Your task to perform on an android device: clear history in the chrome app Image 0: 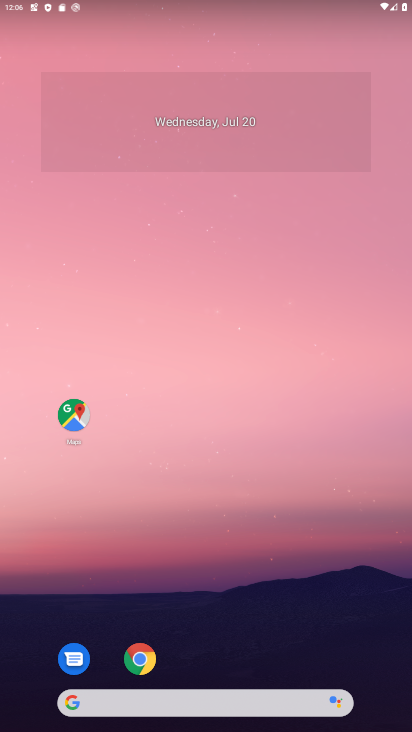
Step 0: click (134, 660)
Your task to perform on an android device: clear history in the chrome app Image 1: 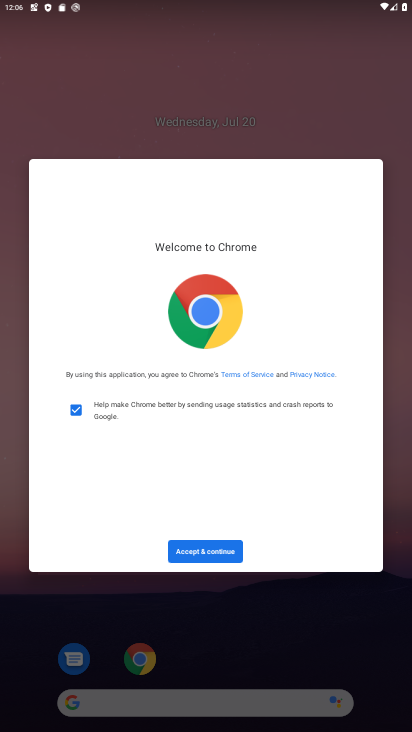
Step 1: click (218, 551)
Your task to perform on an android device: clear history in the chrome app Image 2: 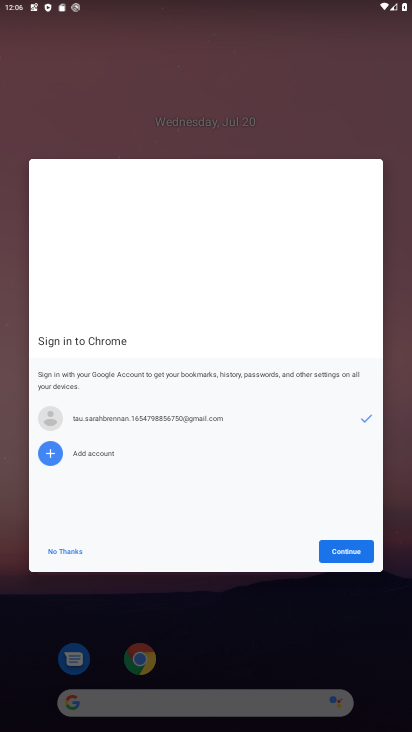
Step 2: click (347, 553)
Your task to perform on an android device: clear history in the chrome app Image 3: 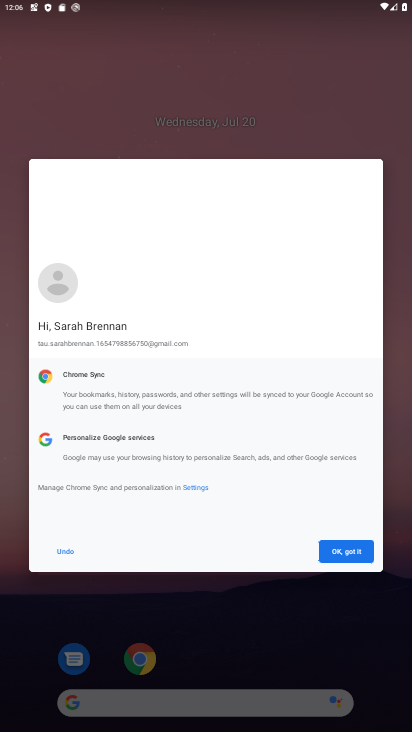
Step 3: click (347, 553)
Your task to perform on an android device: clear history in the chrome app Image 4: 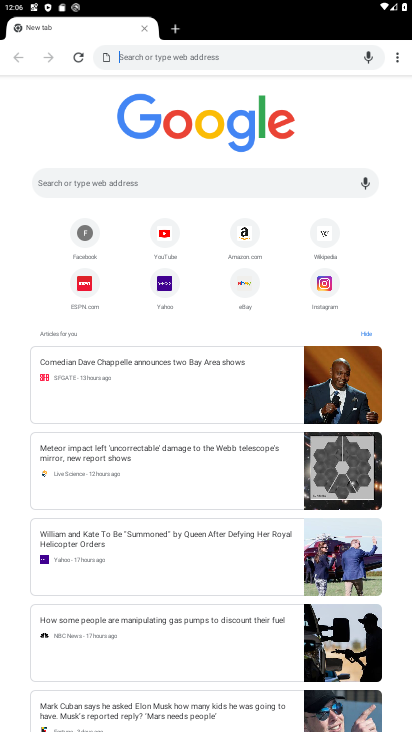
Step 4: click (396, 59)
Your task to perform on an android device: clear history in the chrome app Image 5: 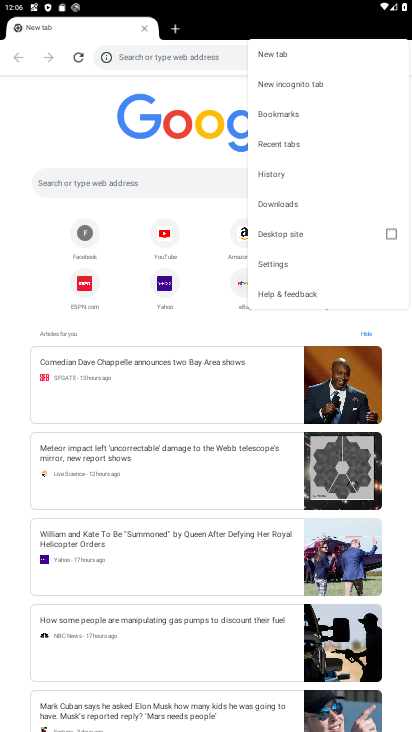
Step 5: click (286, 175)
Your task to perform on an android device: clear history in the chrome app Image 6: 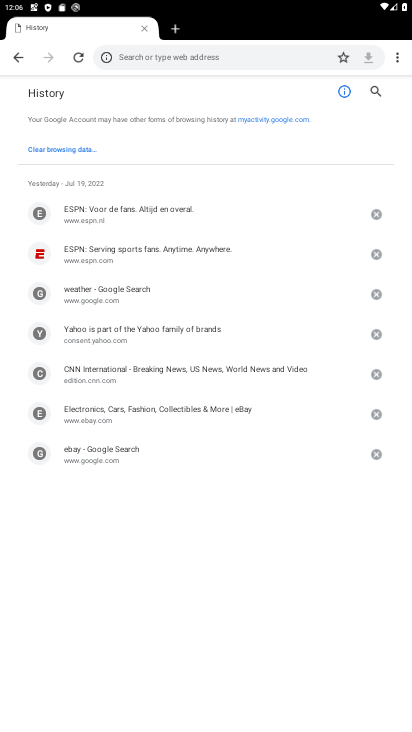
Step 6: click (75, 148)
Your task to perform on an android device: clear history in the chrome app Image 7: 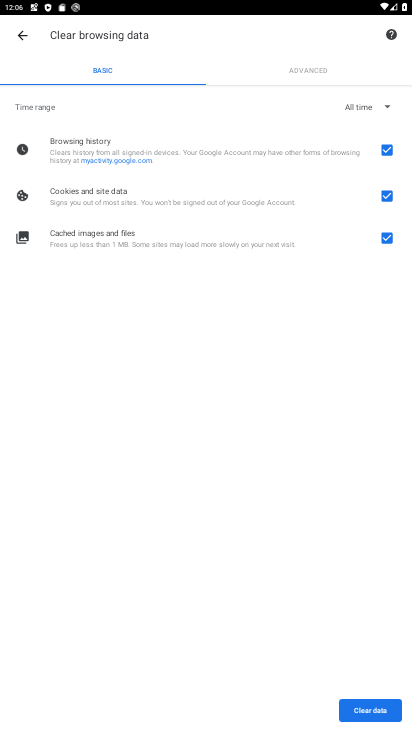
Step 7: click (362, 710)
Your task to perform on an android device: clear history in the chrome app Image 8: 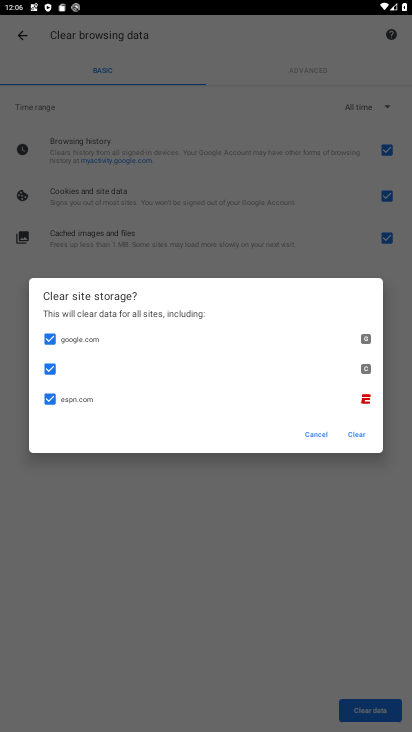
Step 8: click (357, 432)
Your task to perform on an android device: clear history in the chrome app Image 9: 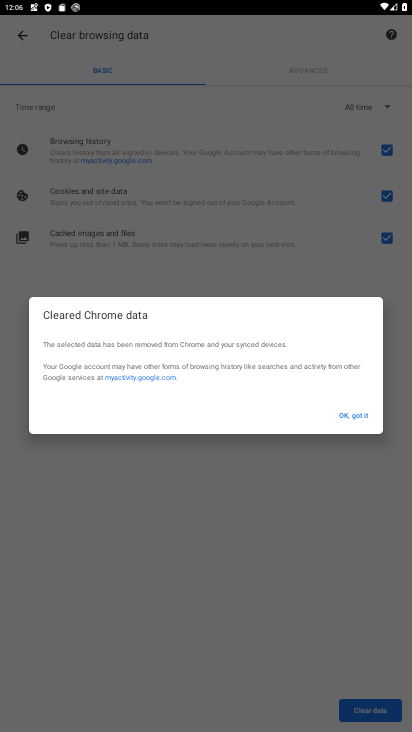
Step 9: click (354, 419)
Your task to perform on an android device: clear history in the chrome app Image 10: 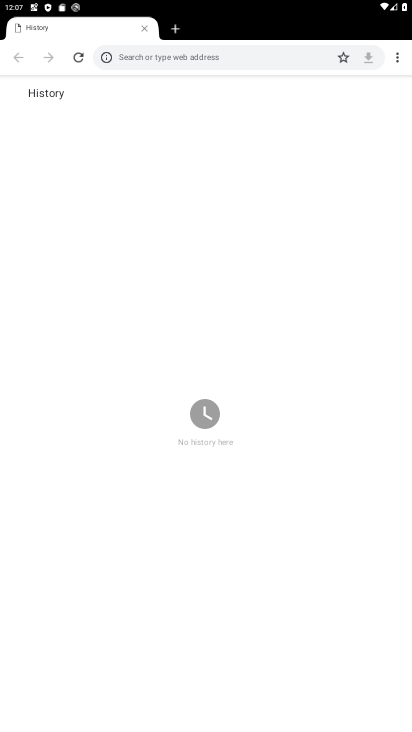
Step 10: task complete